Your task to perform on an android device: Open maps Image 0: 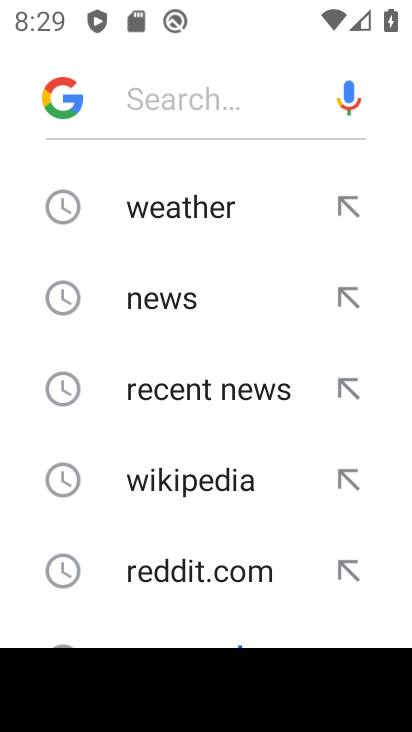
Step 0: press home button
Your task to perform on an android device: Open maps Image 1: 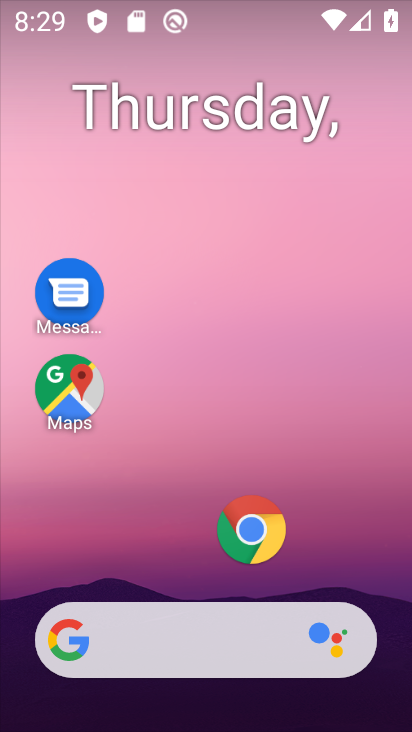
Step 1: click (77, 378)
Your task to perform on an android device: Open maps Image 2: 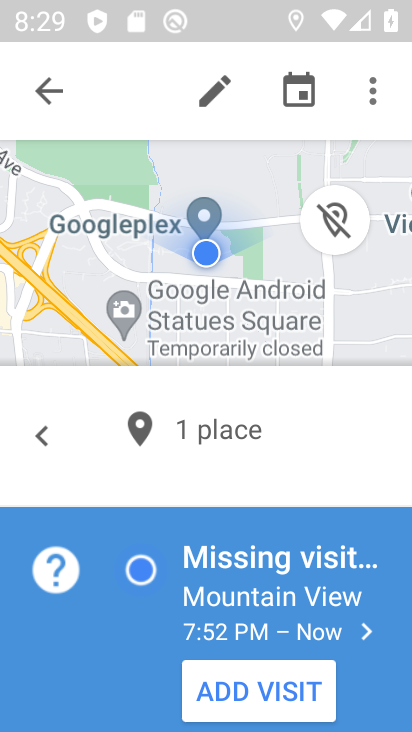
Step 2: click (62, 87)
Your task to perform on an android device: Open maps Image 3: 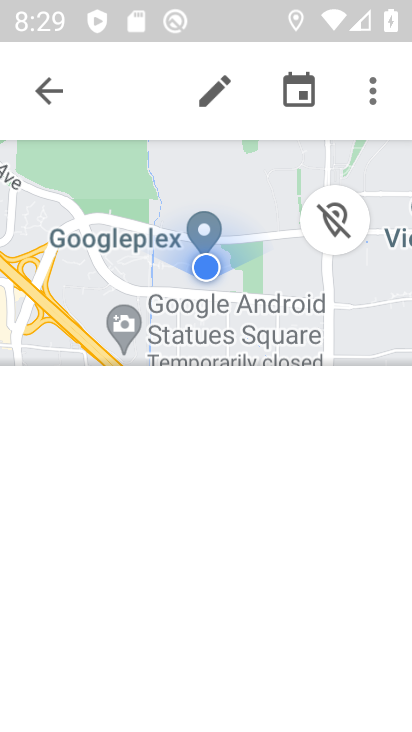
Step 3: click (62, 87)
Your task to perform on an android device: Open maps Image 4: 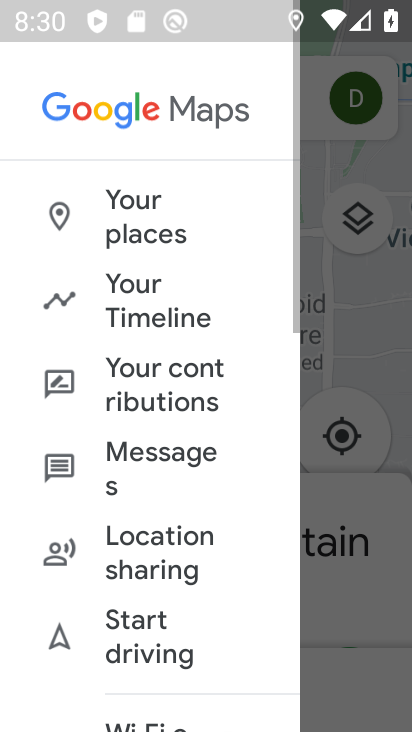
Step 4: task complete